Your task to perform on an android device: change the upload size in google photos Image 0: 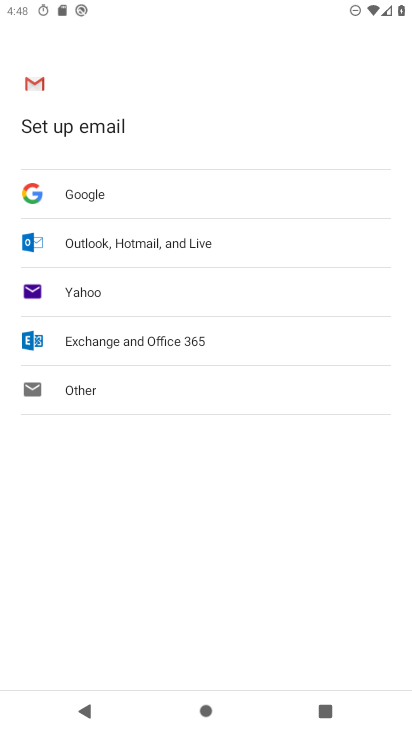
Step 0: press home button
Your task to perform on an android device: change the upload size in google photos Image 1: 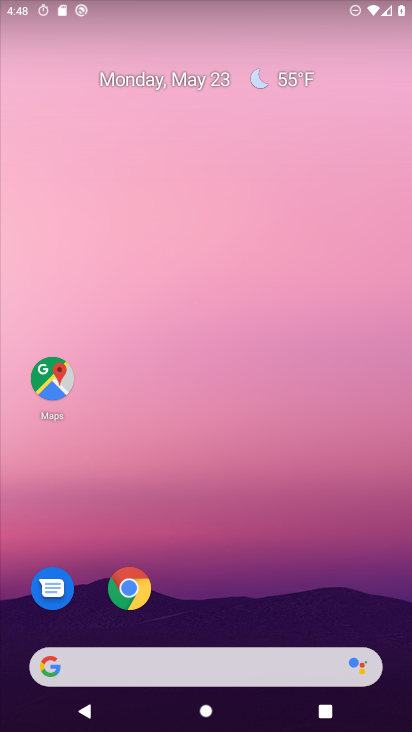
Step 1: drag from (204, 603) to (230, 74)
Your task to perform on an android device: change the upload size in google photos Image 2: 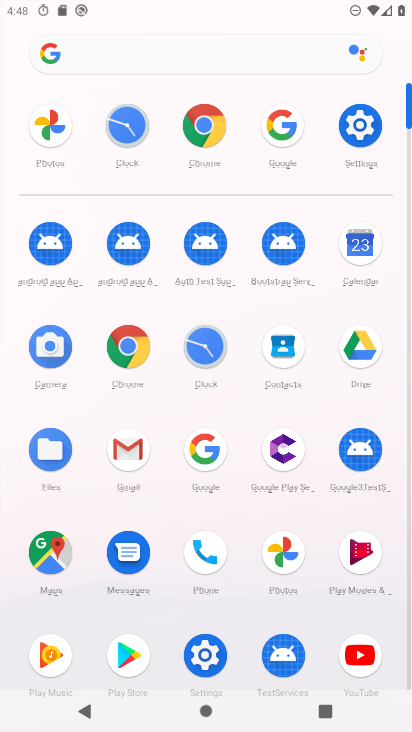
Step 2: click (52, 122)
Your task to perform on an android device: change the upload size in google photos Image 3: 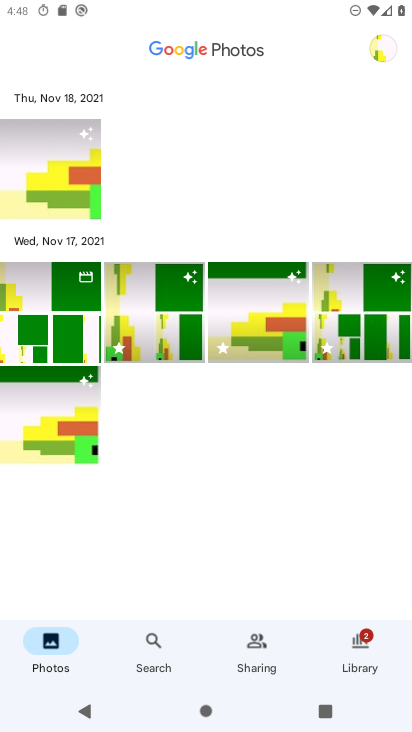
Step 3: click (381, 46)
Your task to perform on an android device: change the upload size in google photos Image 4: 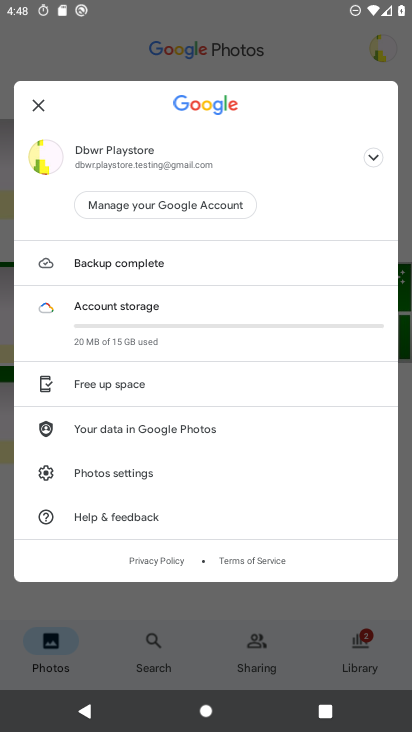
Step 4: click (122, 478)
Your task to perform on an android device: change the upload size in google photos Image 5: 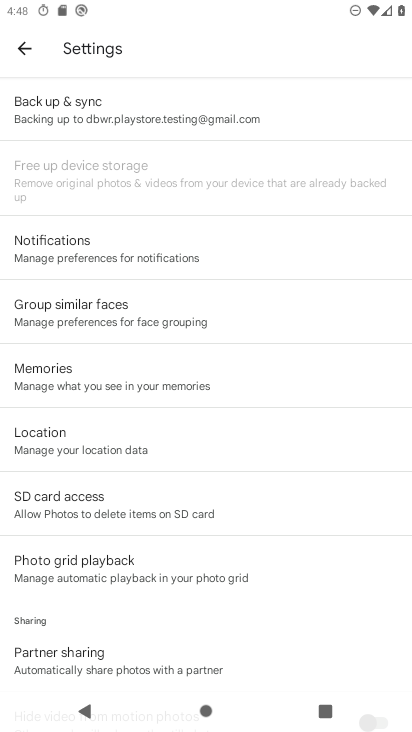
Step 5: drag from (173, 568) to (222, 176)
Your task to perform on an android device: change the upload size in google photos Image 6: 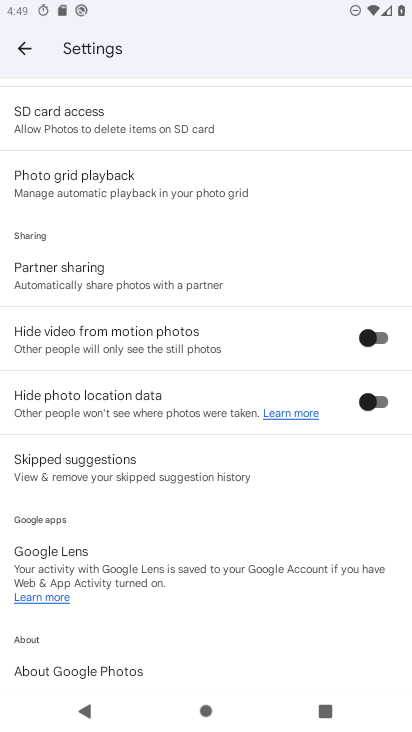
Step 6: drag from (134, 602) to (245, 562)
Your task to perform on an android device: change the upload size in google photos Image 7: 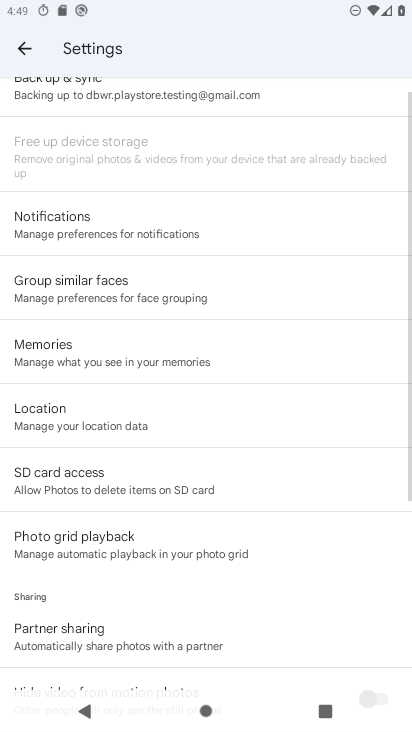
Step 7: drag from (151, 298) to (220, 582)
Your task to perform on an android device: change the upload size in google photos Image 8: 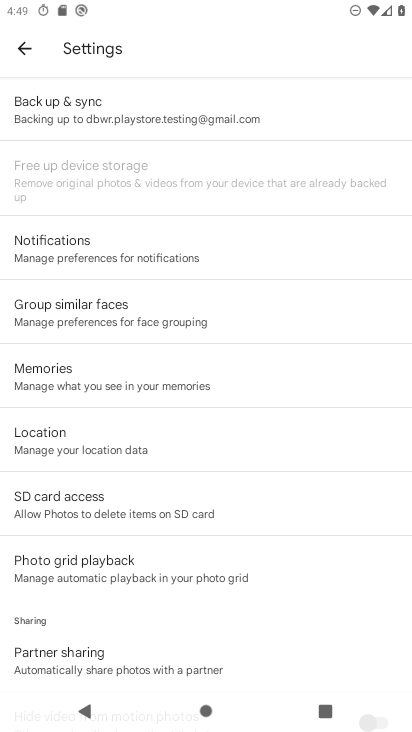
Step 8: click (112, 110)
Your task to perform on an android device: change the upload size in google photos Image 9: 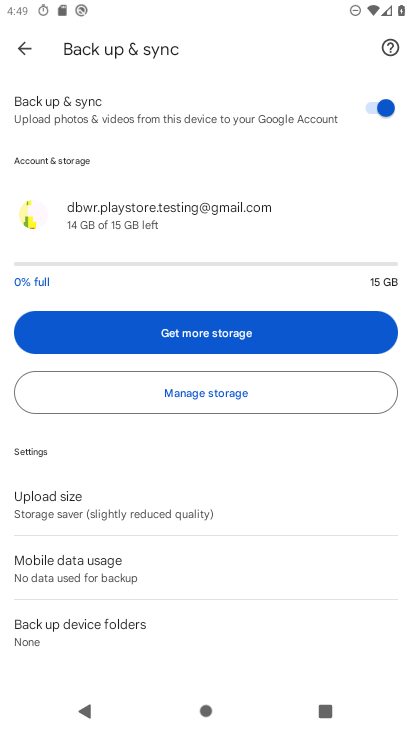
Step 9: click (100, 493)
Your task to perform on an android device: change the upload size in google photos Image 10: 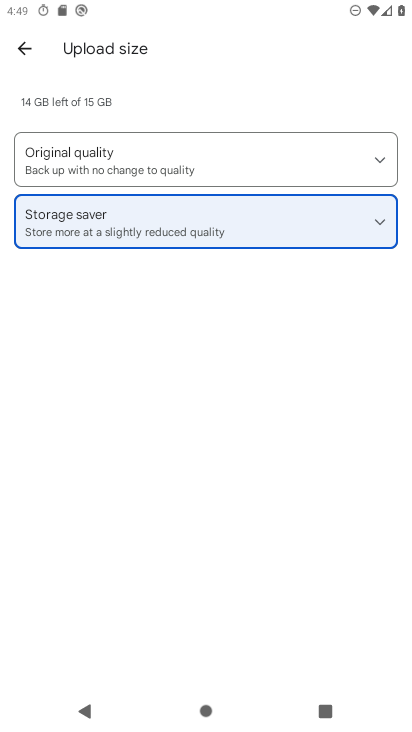
Step 10: click (117, 171)
Your task to perform on an android device: change the upload size in google photos Image 11: 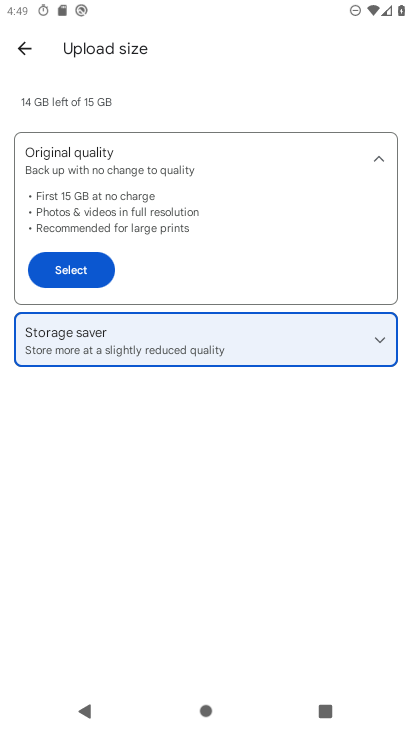
Step 11: click (94, 263)
Your task to perform on an android device: change the upload size in google photos Image 12: 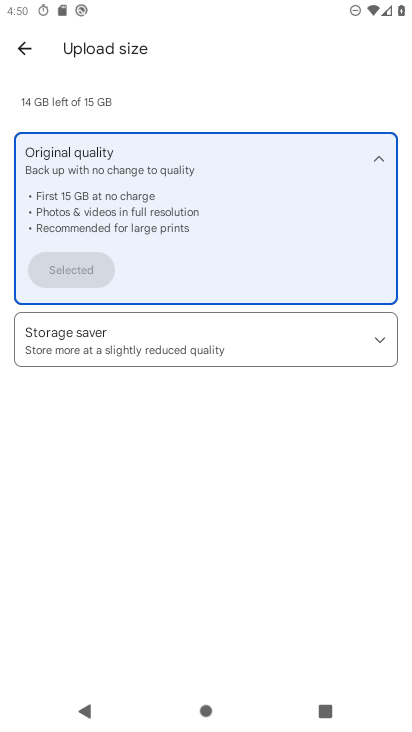
Step 12: task complete